Your task to perform on an android device: Open the phone app and click the voicemail tab. Image 0: 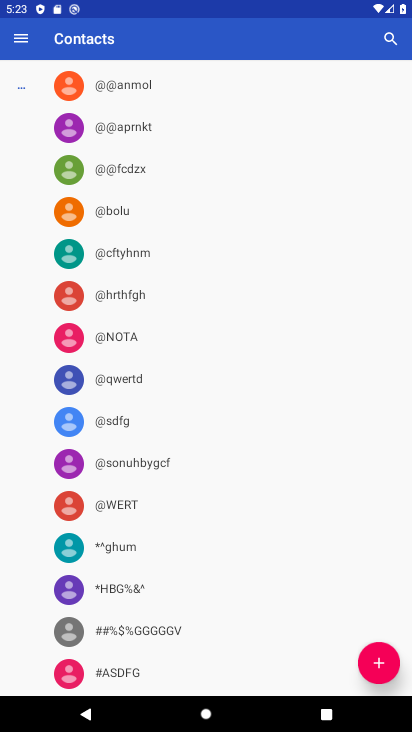
Step 0: press back button
Your task to perform on an android device: Open the phone app and click the voicemail tab. Image 1: 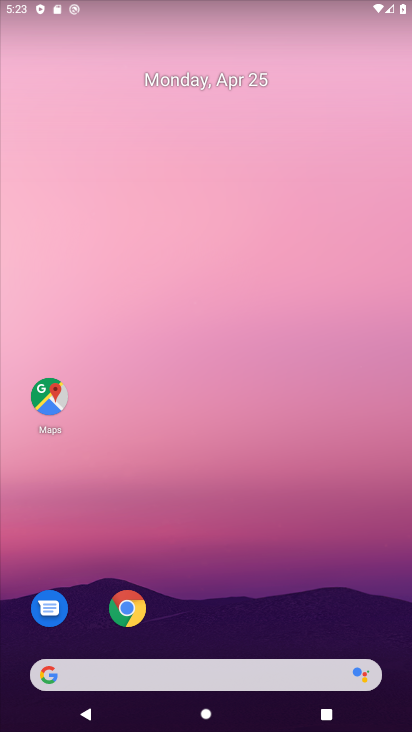
Step 1: drag from (209, 550) to (181, 59)
Your task to perform on an android device: Open the phone app and click the voicemail tab. Image 2: 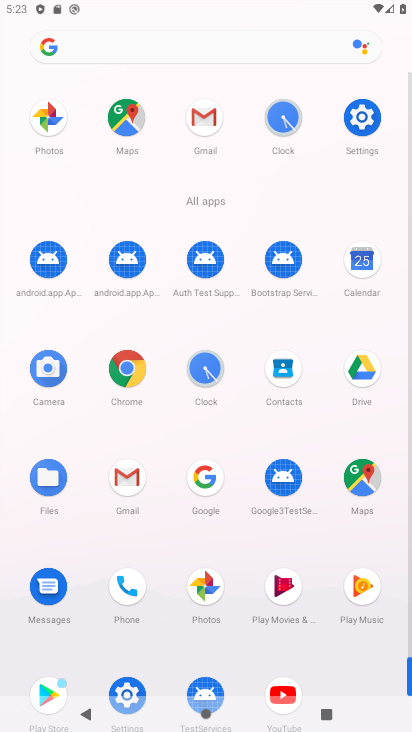
Step 2: drag from (14, 514) to (18, 200)
Your task to perform on an android device: Open the phone app and click the voicemail tab. Image 3: 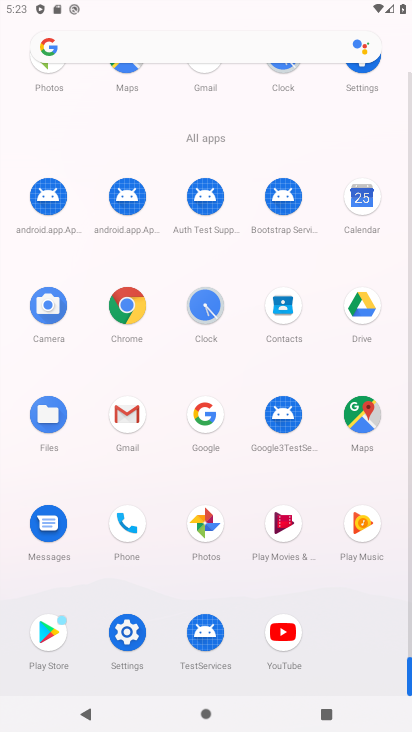
Step 3: drag from (2, 531) to (7, 228)
Your task to perform on an android device: Open the phone app and click the voicemail tab. Image 4: 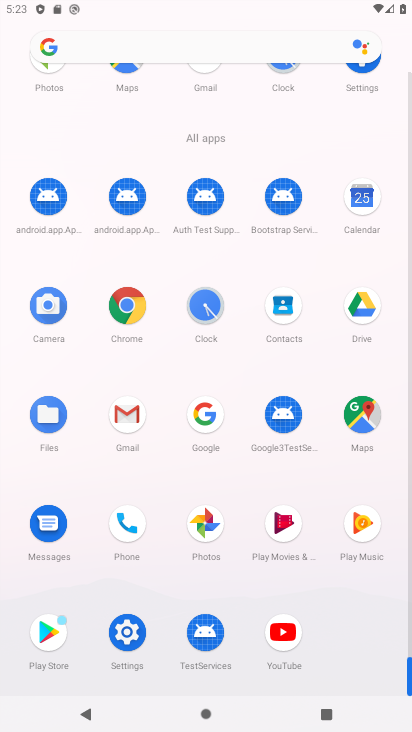
Step 4: click (128, 521)
Your task to perform on an android device: Open the phone app and click the voicemail tab. Image 5: 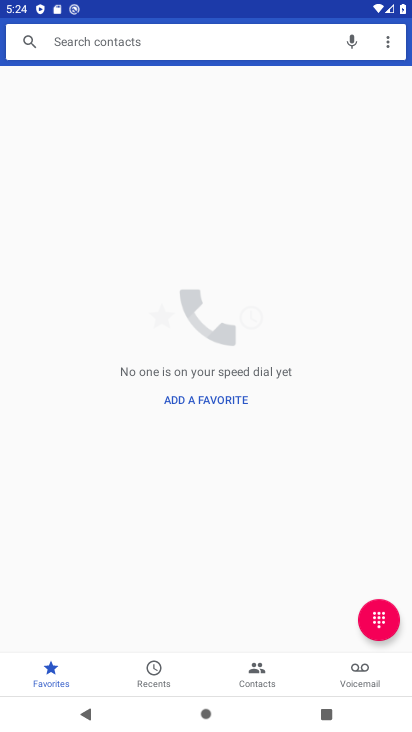
Step 5: click (378, 677)
Your task to perform on an android device: Open the phone app and click the voicemail tab. Image 6: 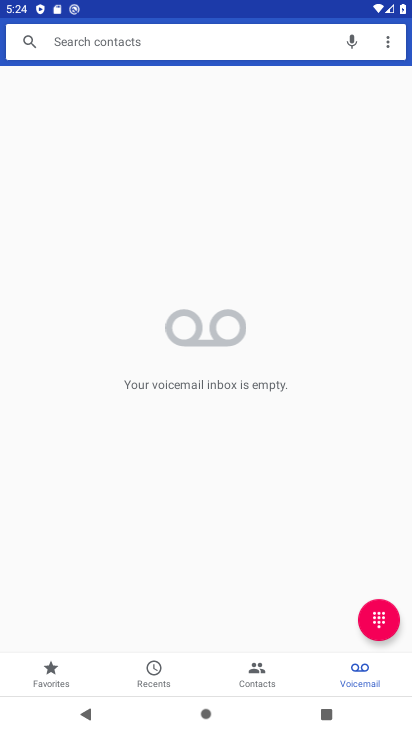
Step 6: task complete